Your task to perform on an android device: clear all cookies in the chrome app Image 0: 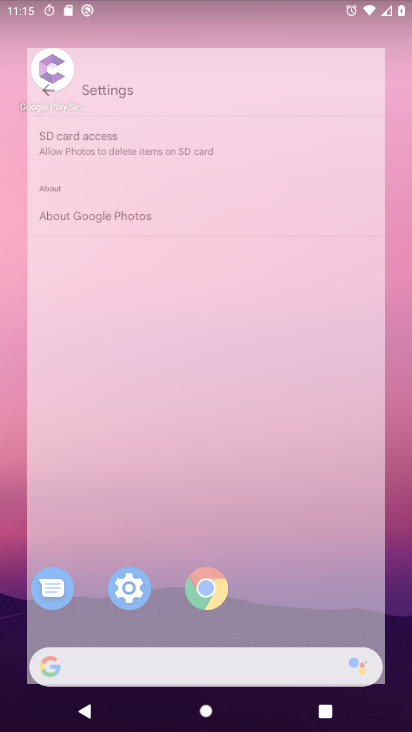
Step 0: drag from (320, 702) to (276, 173)
Your task to perform on an android device: clear all cookies in the chrome app Image 1: 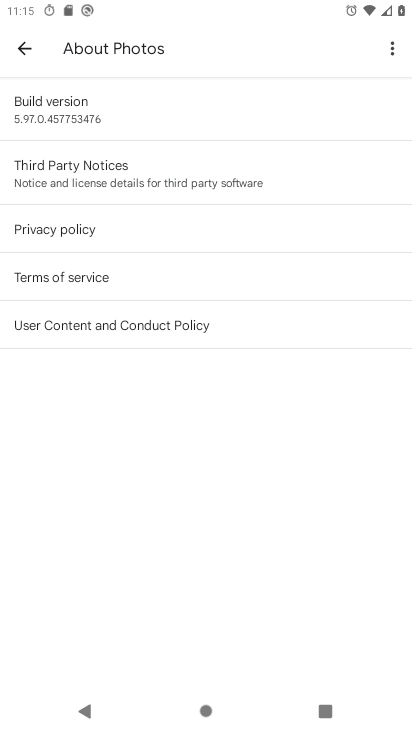
Step 1: click (24, 40)
Your task to perform on an android device: clear all cookies in the chrome app Image 2: 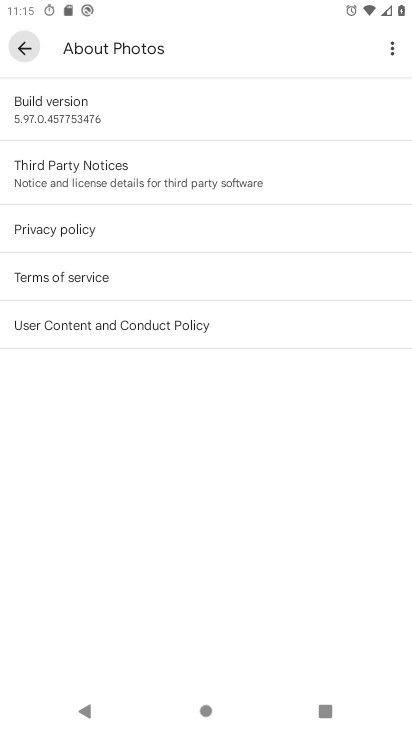
Step 2: click (24, 42)
Your task to perform on an android device: clear all cookies in the chrome app Image 3: 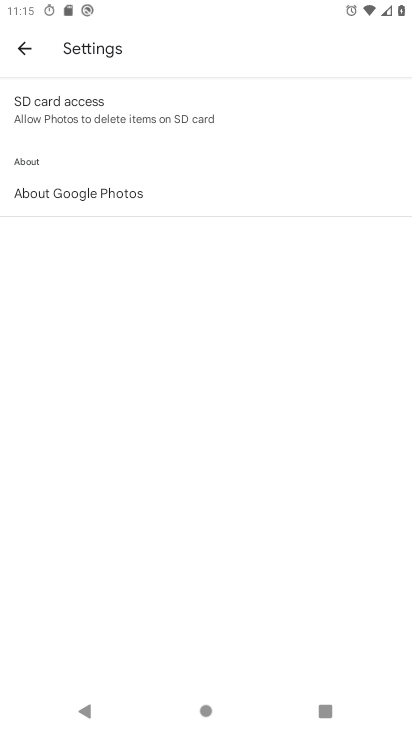
Step 3: click (21, 43)
Your task to perform on an android device: clear all cookies in the chrome app Image 4: 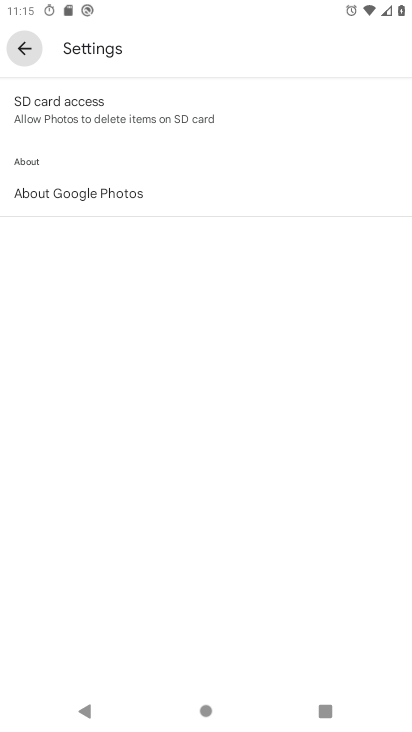
Step 4: click (22, 42)
Your task to perform on an android device: clear all cookies in the chrome app Image 5: 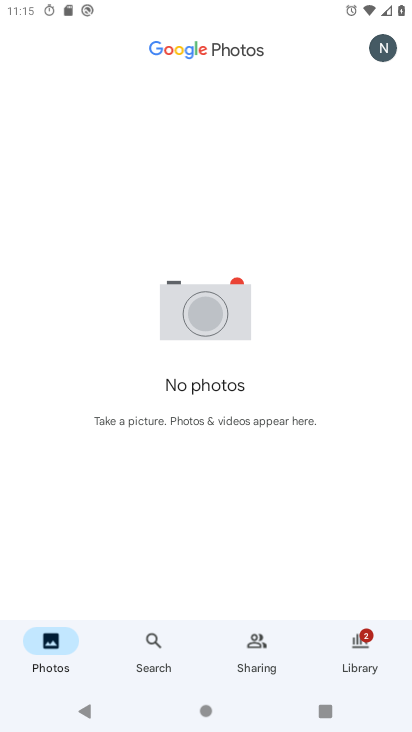
Step 5: press back button
Your task to perform on an android device: clear all cookies in the chrome app Image 6: 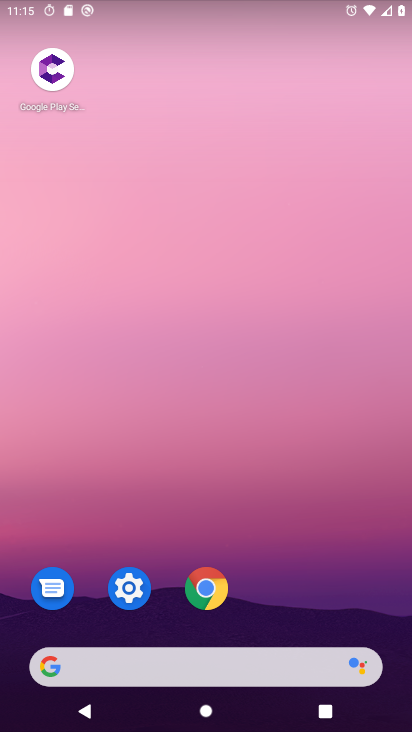
Step 6: drag from (242, 690) to (272, 133)
Your task to perform on an android device: clear all cookies in the chrome app Image 7: 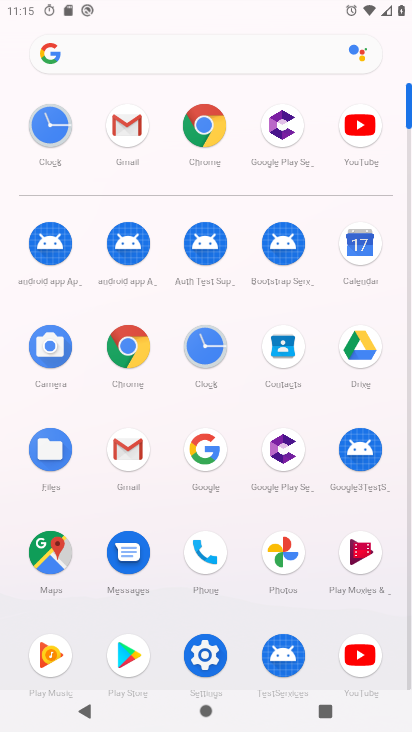
Step 7: click (206, 140)
Your task to perform on an android device: clear all cookies in the chrome app Image 8: 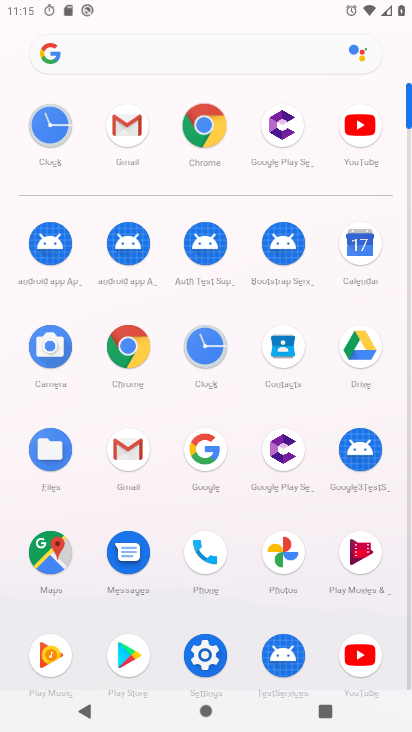
Step 8: click (205, 133)
Your task to perform on an android device: clear all cookies in the chrome app Image 9: 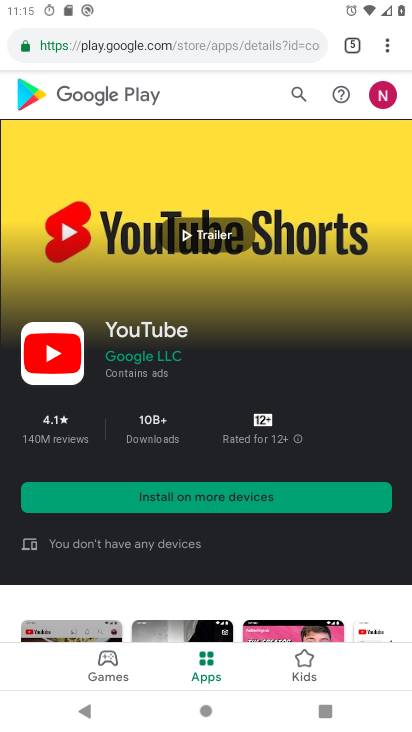
Step 9: drag from (383, 36) to (229, 541)
Your task to perform on an android device: clear all cookies in the chrome app Image 10: 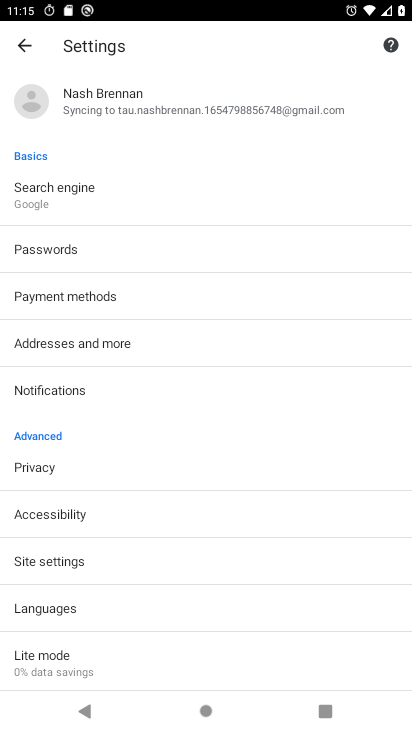
Step 10: click (27, 562)
Your task to perform on an android device: clear all cookies in the chrome app Image 11: 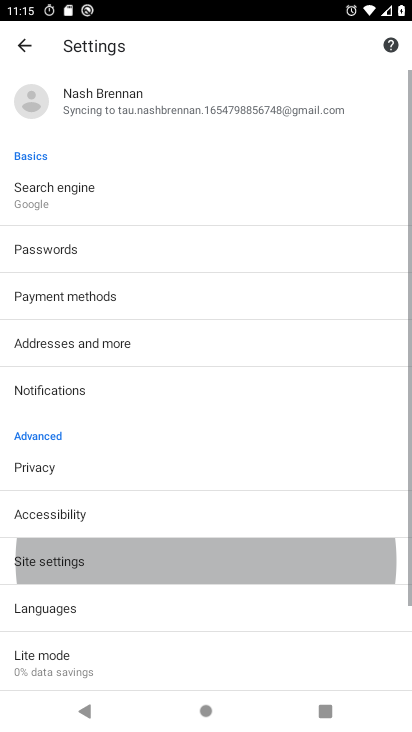
Step 11: click (27, 562)
Your task to perform on an android device: clear all cookies in the chrome app Image 12: 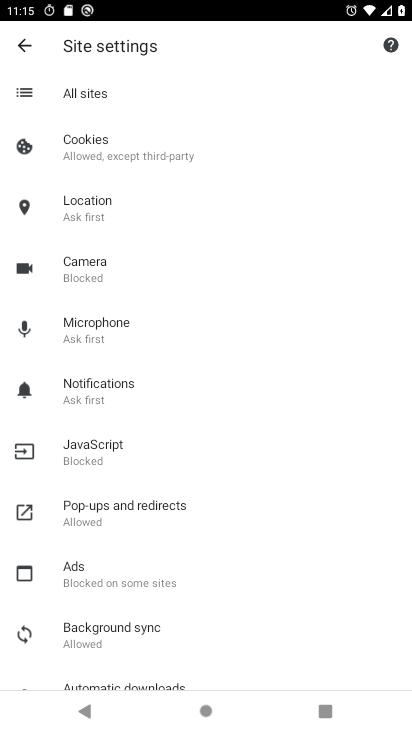
Step 12: click (91, 136)
Your task to perform on an android device: clear all cookies in the chrome app Image 13: 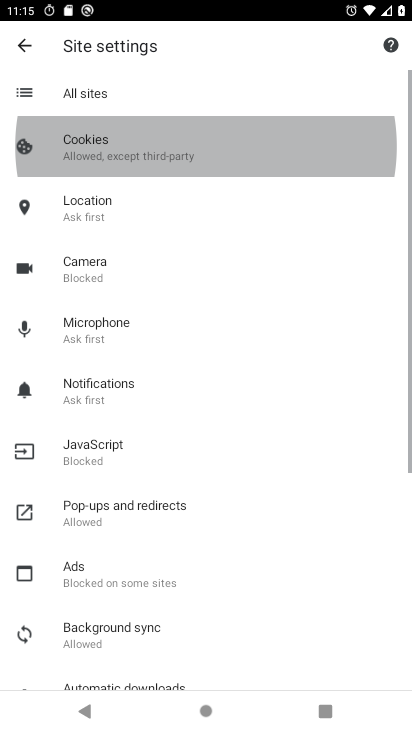
Step 13: click (91, 136)
Your task to perform on an android device: clear all cookies in the chrome app Image 14: 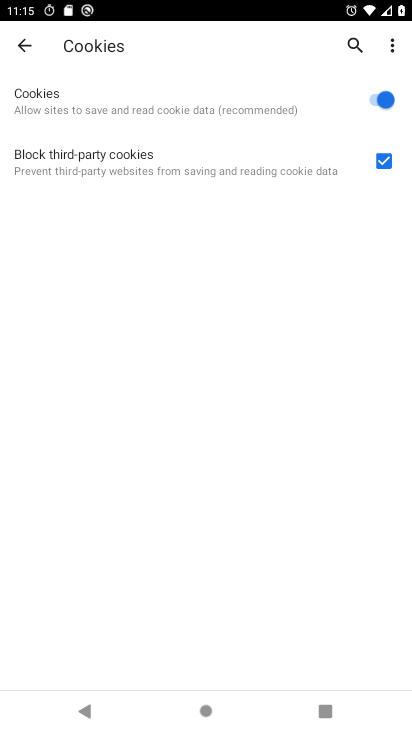
Step 14: click (386, 101)
Your task to perform on an android device: clear all cookies in the chrome app Image 15: 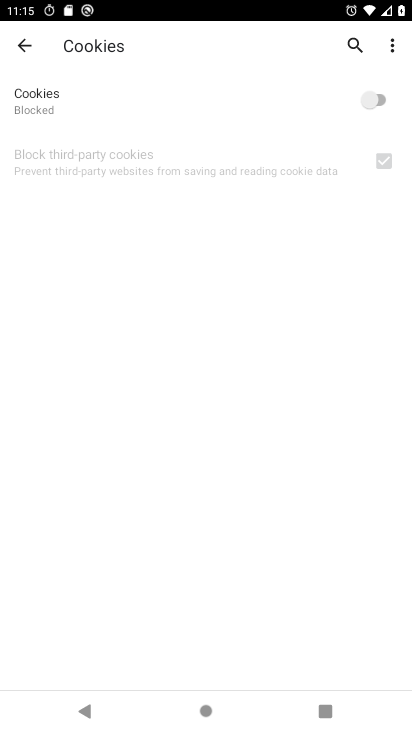
Step 15: task complete